Your task to perform on an android device: change notification settings in the gmail app Image 0: 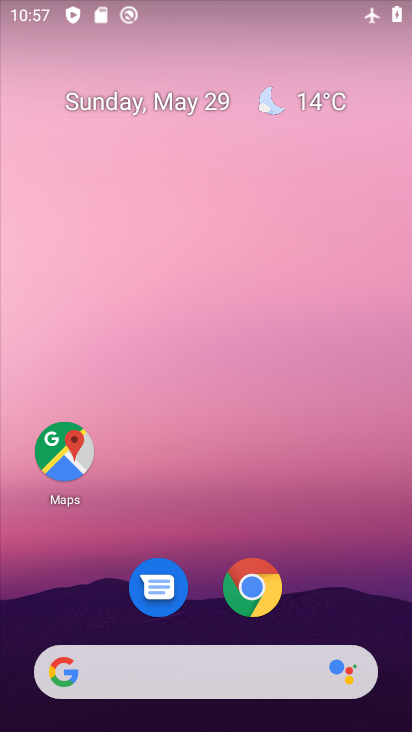
Step 0: drag from (314, 555) to (302, 168)
Your task to perform on an android device: change notification settings in the gmail app Image 1: 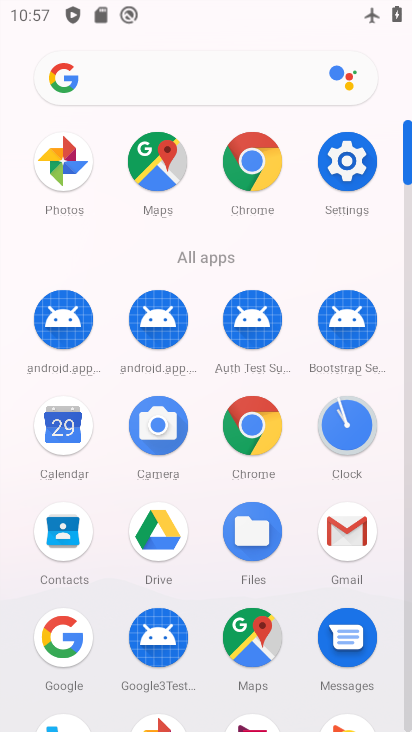
Step 1: click (352, 551)
Your task to perform on an android device: change notification settings in the gmail app Image 2: 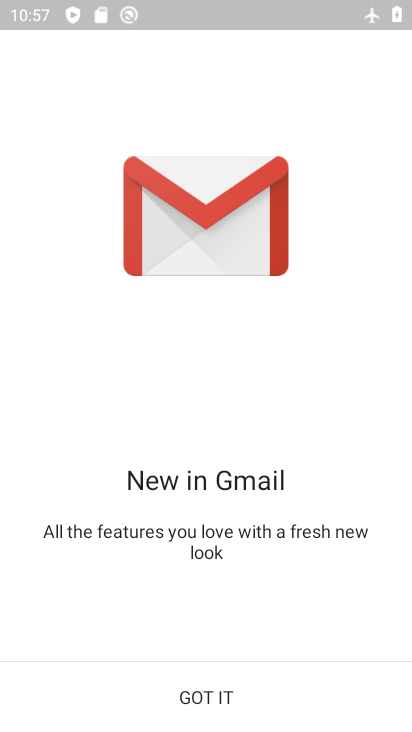
Step 2: click (238, 701)
Your task to perform on an android device: change notification settings in the gmail app Image 3: 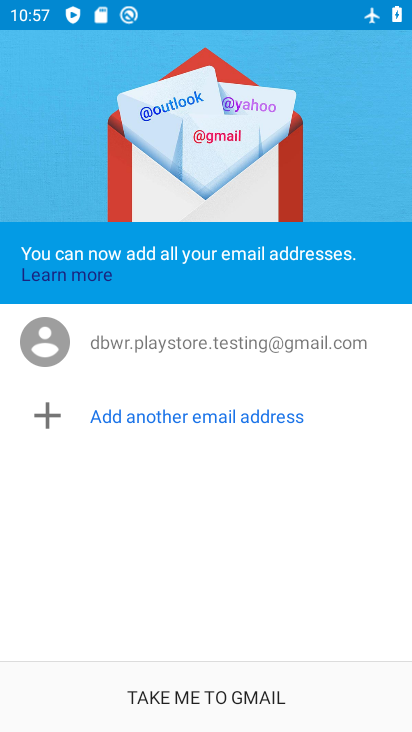
Step 3: click (250, 700)
Your task to perform on an android device: change notification settings in the gmail app Image 4: 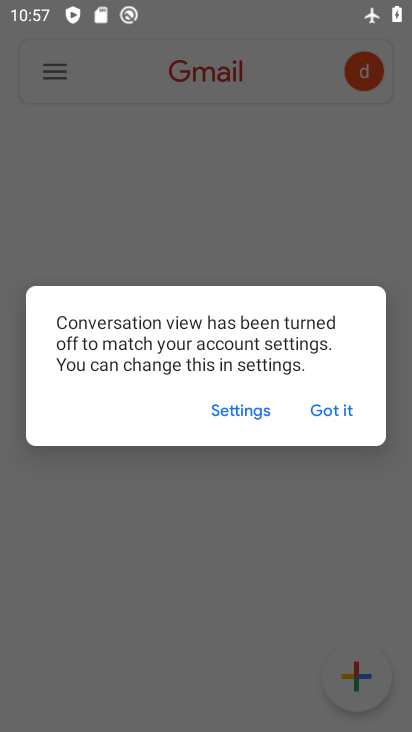
Step 4: click (329, 409)
Your task to perform on an android device: change notification settings in the gmail app Image 5: 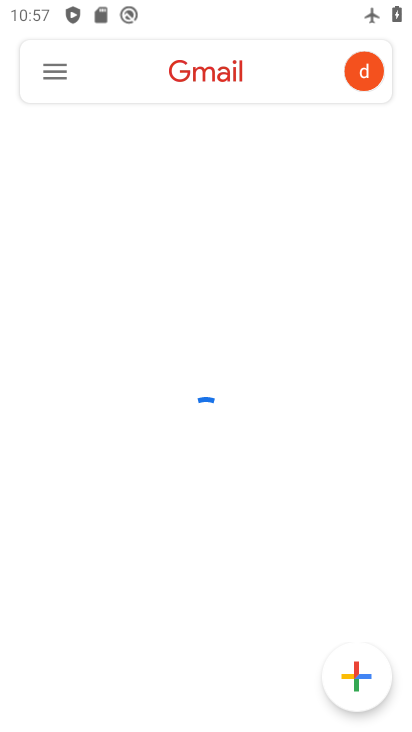
Step 5: click (58, 80)
Your task to perform on an android device: change notification settings in the gmail app Image 6: 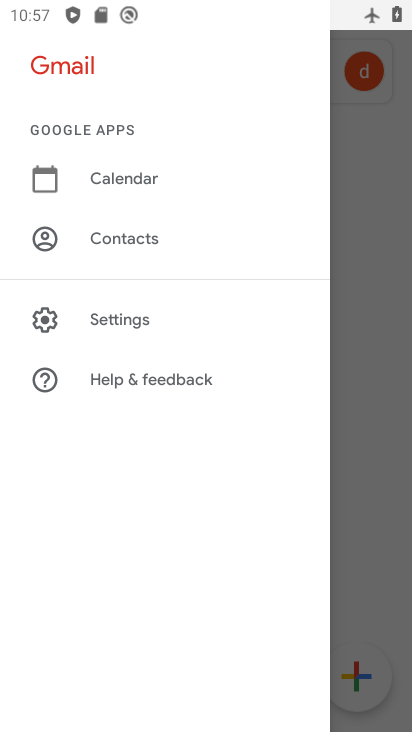
Step 6: click (156, 322)
Your task to perform on an android device: change notification settings in the gmail app Image 7: 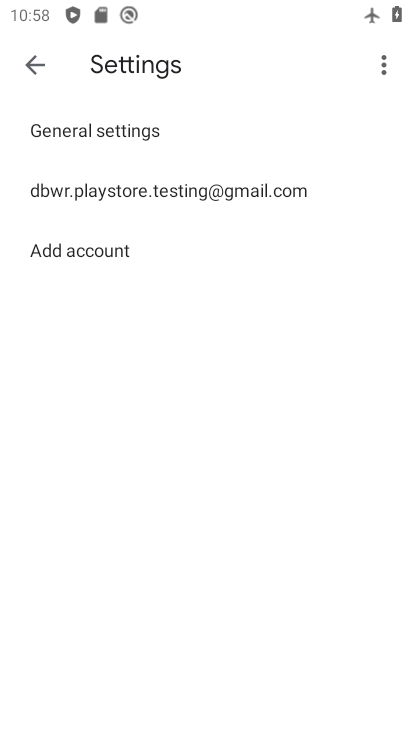
Step 7: click (195, 189)
Your task to perform on an android device: change notification settings in the gmail app Image 8: 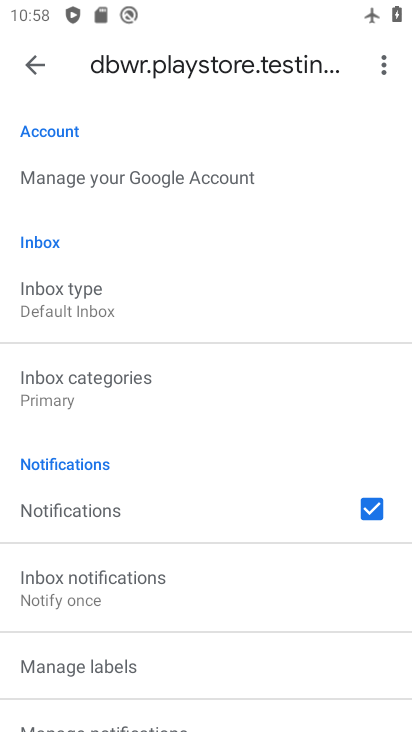
Step 8: click (126, 512)
Your task to perform on an android device: change notification settings in the gmail app Image 9: 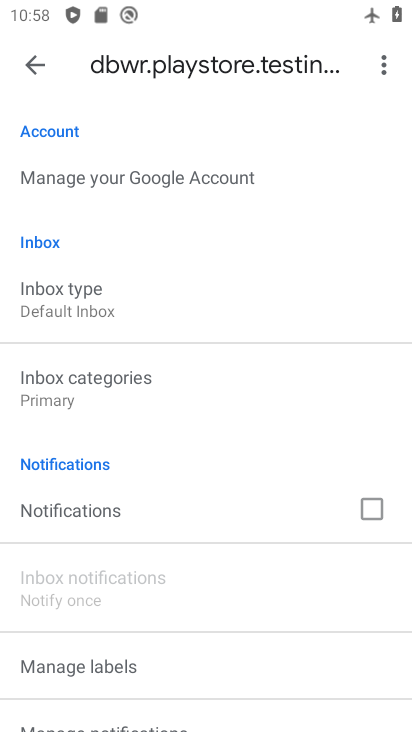
Step 9: task complete